Your task to perform on an android device: When is my next appointment? Image 0: 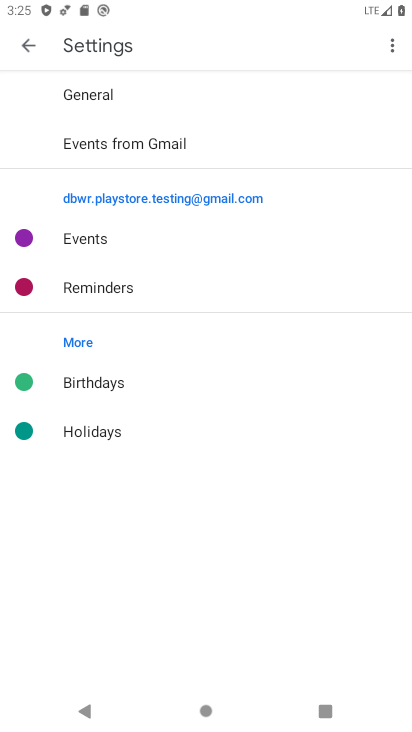
Step 0: press home button
Your task to perform on an android device: When is my next appointment? Image 1: 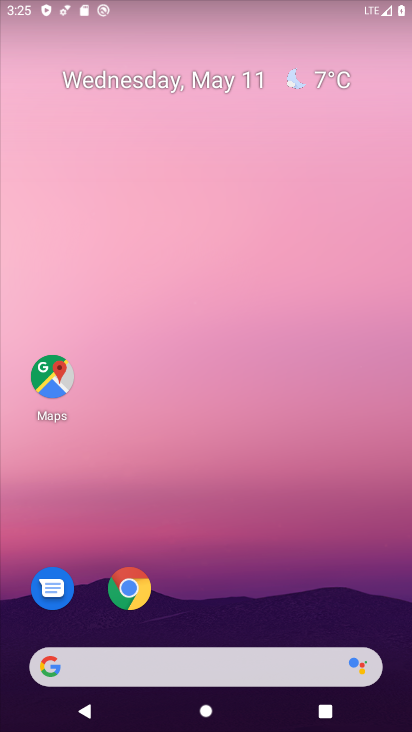
Step 1: drag from (213, 668) to (189, 246)
Your task to perform on an android device: When is my next appointment? Image 2: 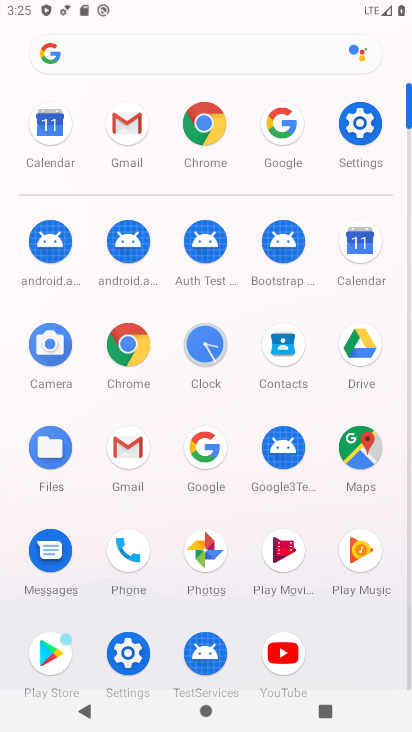
Step 2: click (361, 259)
Your task to perform on an android device: When is my next appointment? Image 3: 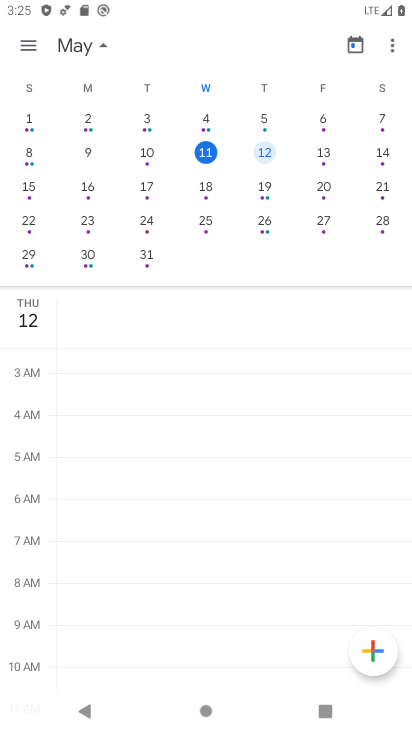
Step 3: click (267, 144)
Your task to perform on an android device: When is my next appointment? Image 4: 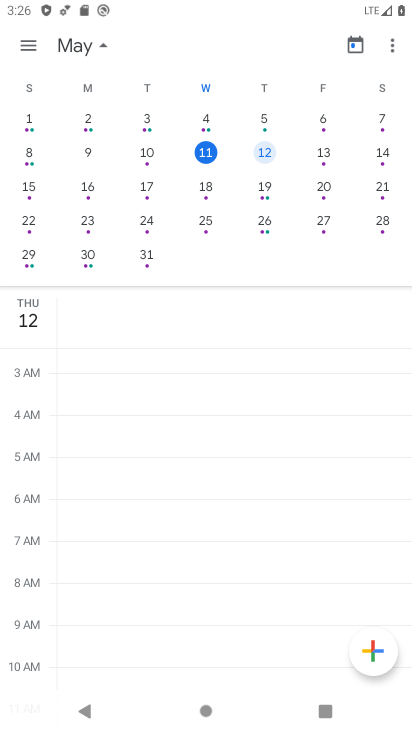
Step 4: click (265, 147)
Your task to perform on an android device: When is my next appointment? Image 5: 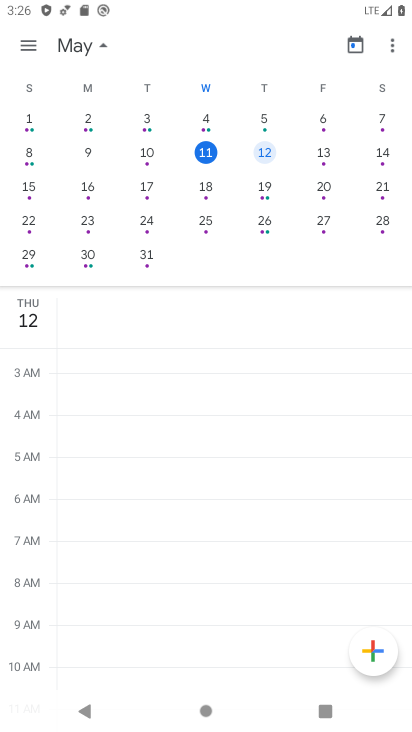
Step 5: task complete